Your task to perform on an android device: Search for pizza restaurants on Maps Image 0: 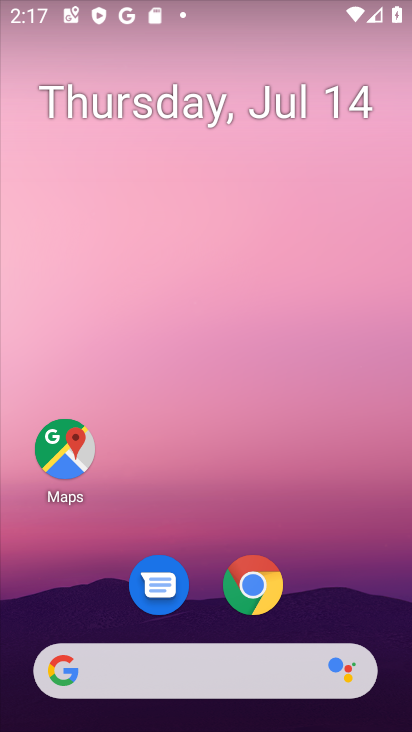
Step 0: click (57, 442)
Your task to perform on an android device: Search for pizza restaurants on Maps Image 1: 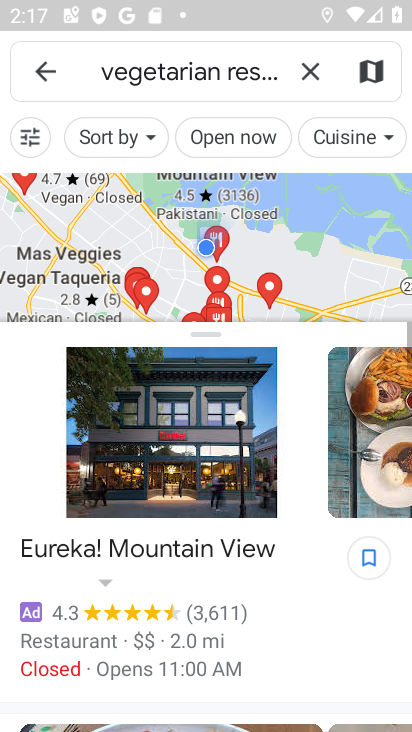
Step 1: click (310, 74)
Your task to perform on an android device: Search for pizza restaurants on Maps Image 2: 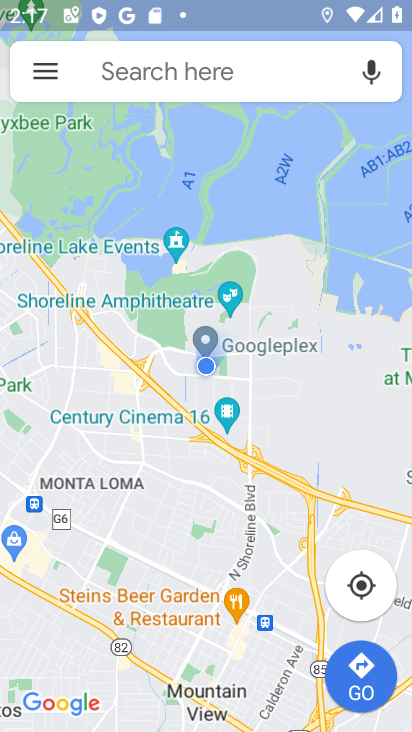
Step 2: click (224, 68)
Your task to perform on an android device: Search for pizza restaurants on Maps Image 3: 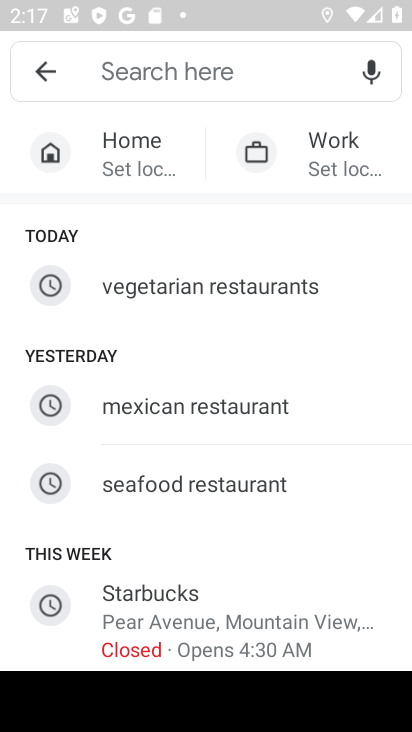
Step 3: drag from (232, 513) to (303, 104)
Your task to perform on an android device: Search for pizza restaurants on Maps Image 4: 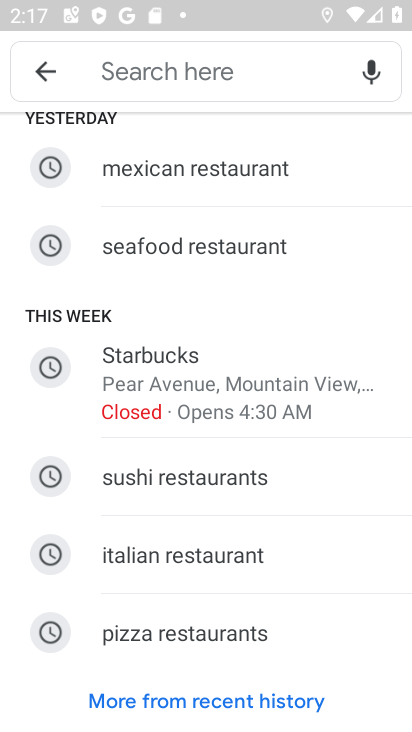
Step 4: click (235, 631)
Your task to perform on an android device: Search for pizza restaurants on Maps Image 5: 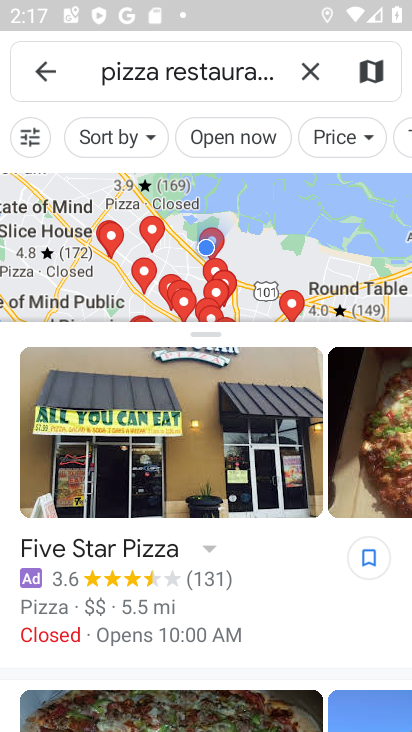
Step 5: task complete